Your task to perform on an android device: set the stopwatch Image 0: 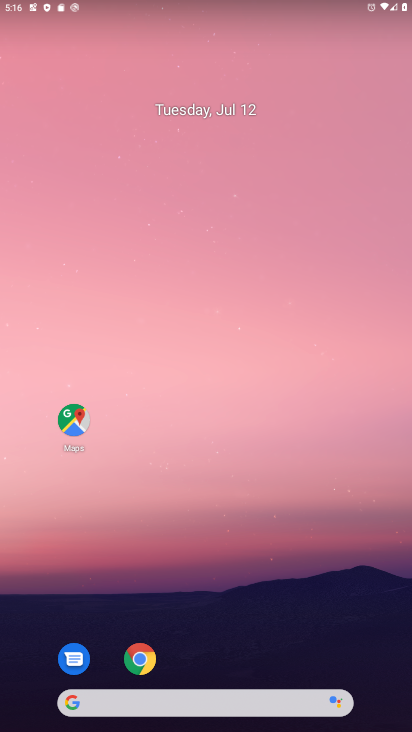
Step 0: drag from (209, 461) to (284, 121)
Your task to perform on an android device: set the stopwatch Image 1: 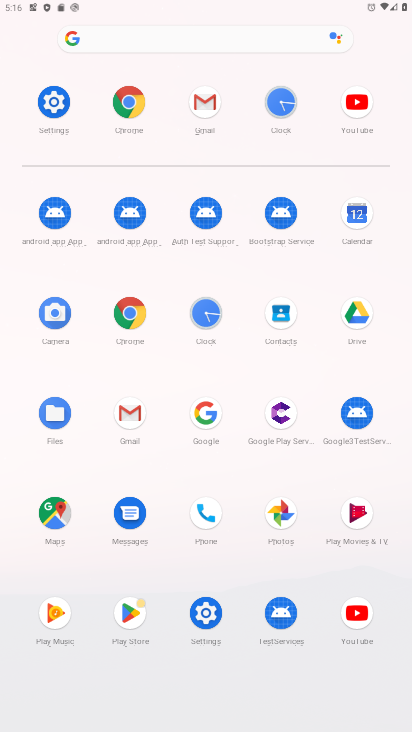
Step 1: click (281, 118)
Your task to perform on an android device: set the stopwatch Image 2: 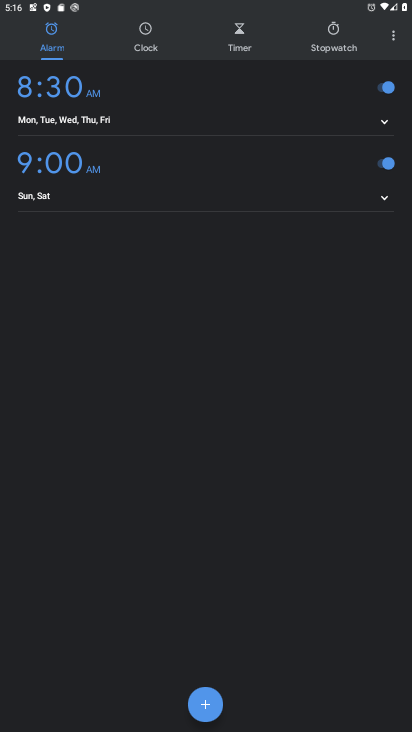
Step 2: click (329, 42)
Your task to perform on an android device: set the stopwatch Image 3: 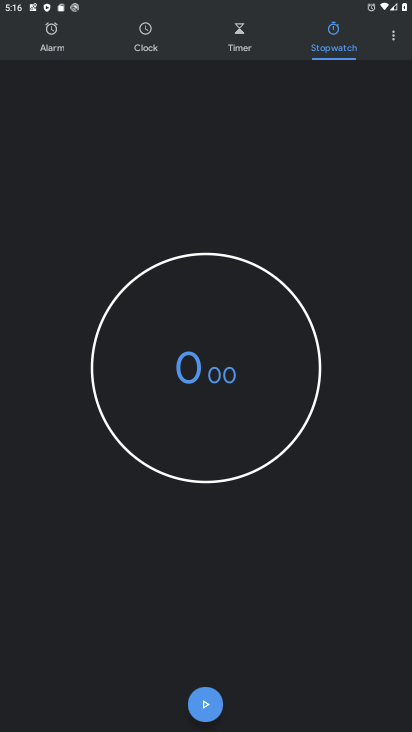
Step 3: click (207, 707)
Your task to perform on an android device: set the stopwatch Image 4: 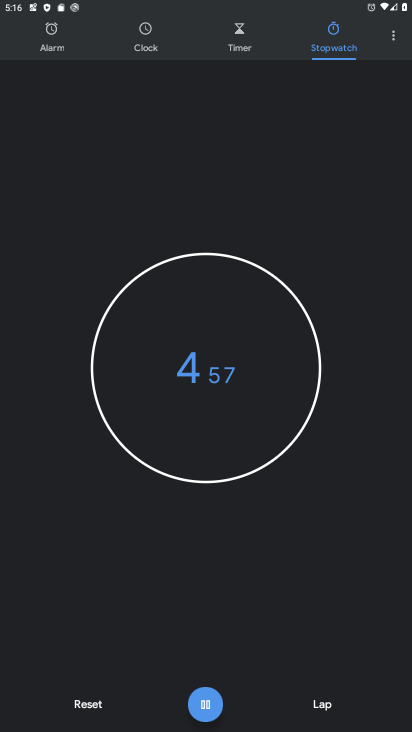
Step 4: click (207, 707)
Your task to perform on an android device: set the stopwatch Image 5: 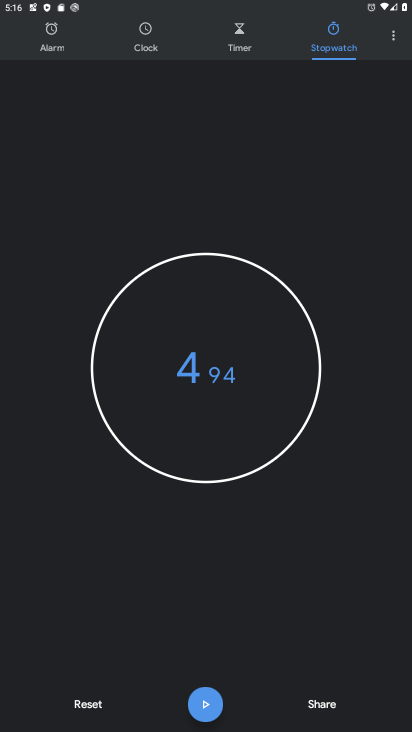
Step 5: task complete